Your task to perform on an android device: Go to calendar. Show me events next week Image 0: 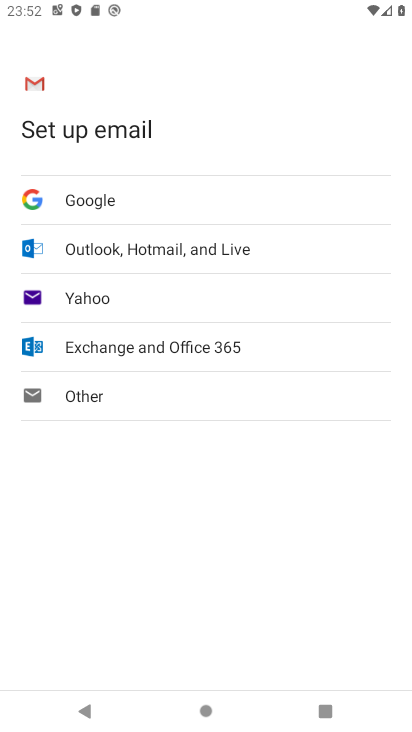
Step 0: press home button
Your task to perform on an android device: Go to calendar. Show me events next week Image 1: 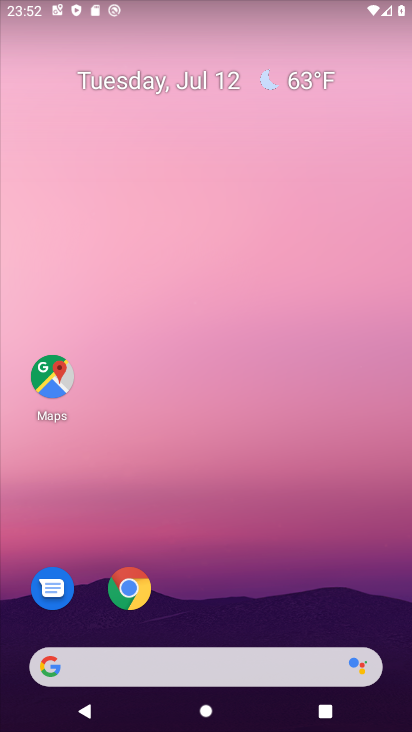
Step 1: drag from (35, 684) to (128, 260)
Your task to perform on an android device: Go to calendar. Show me events next week Image 2: 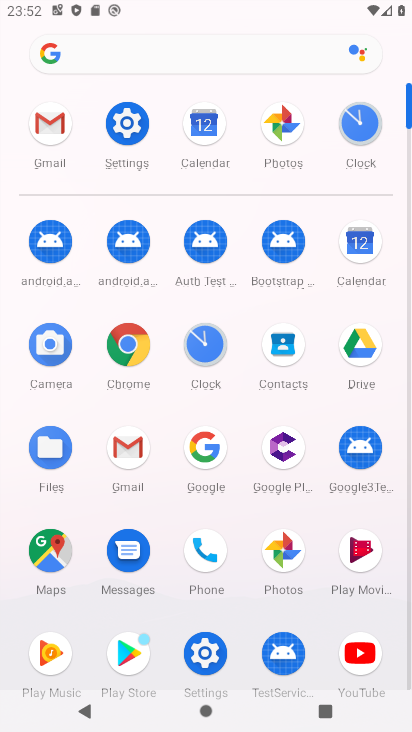
Step 2: click (352, 251)
Your task to perform on an android device: Go to calendar. Show me events next week Image 3: 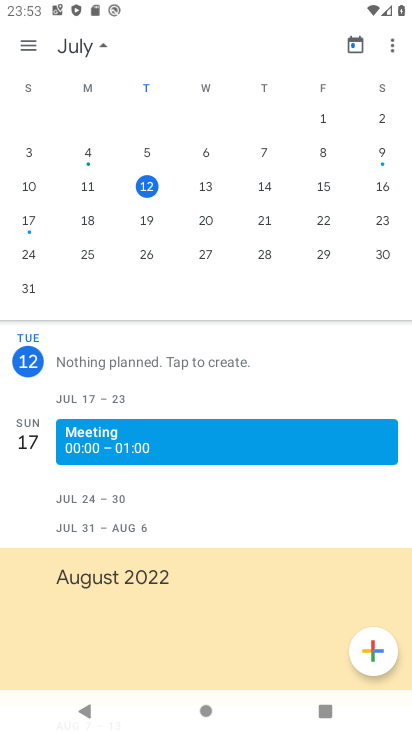
Step 3: task complete